Your task to perform on an android device: toggle pop-ups in chrome Image 0: 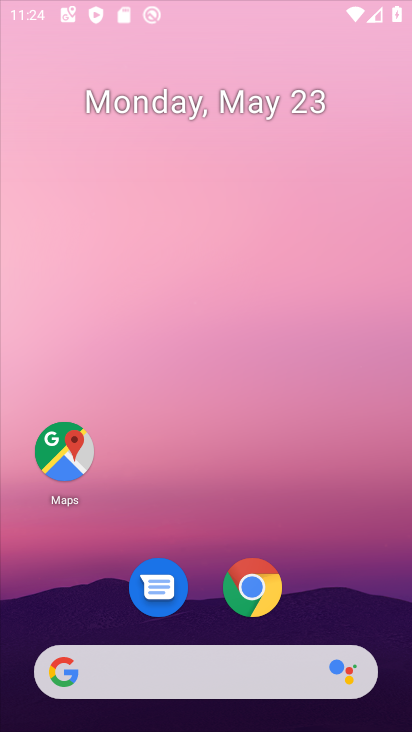
Step 0: click (263, 595)
Your task to perform on an android device: toggle pop-ups in chrome Image 1: 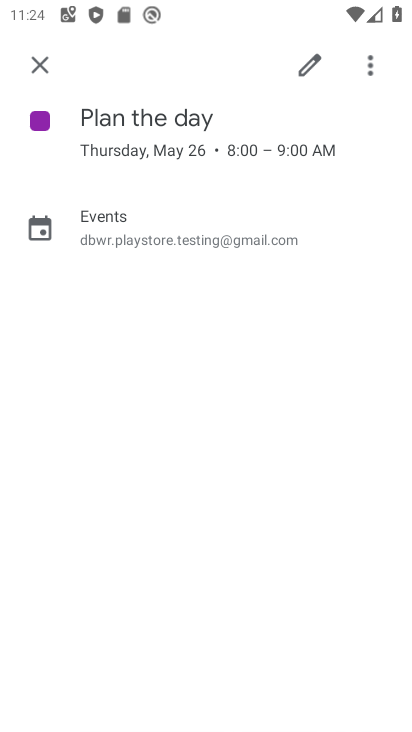
Step 1: press home button
Your task to perform on an android device: toggle pop-ups in chrome Image 2: 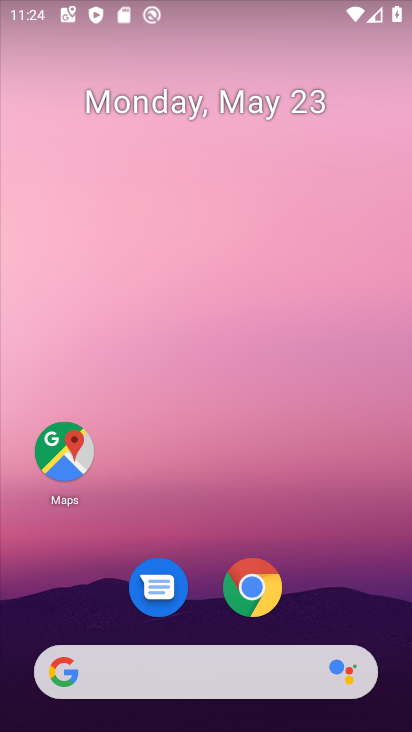
Step 2: click (267, 591)
Your task to perform on an android device: toggle pop-ups in chrome Image 3: 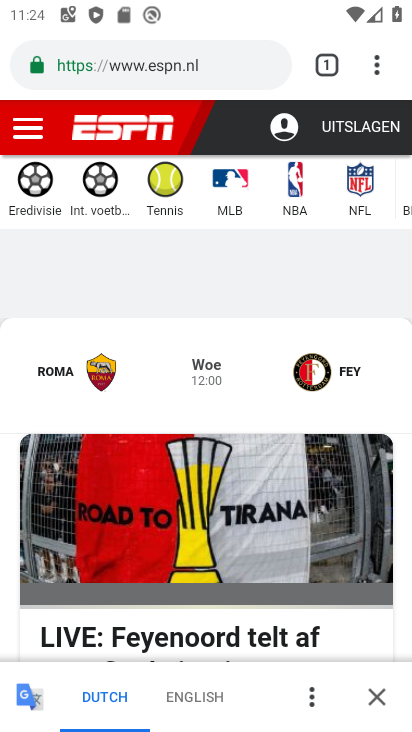
Step 3: click (377, 69)
Your task to perform on an android device: toggle pop-ups in chrome Image 4: 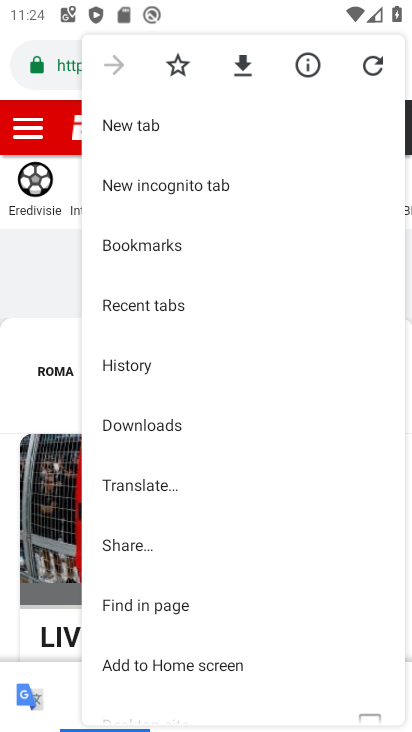
Step 4: drag from (204, 637) to (189, 244)
Your task to perform on an android device: toggle pop-ups in chrome Image 5: 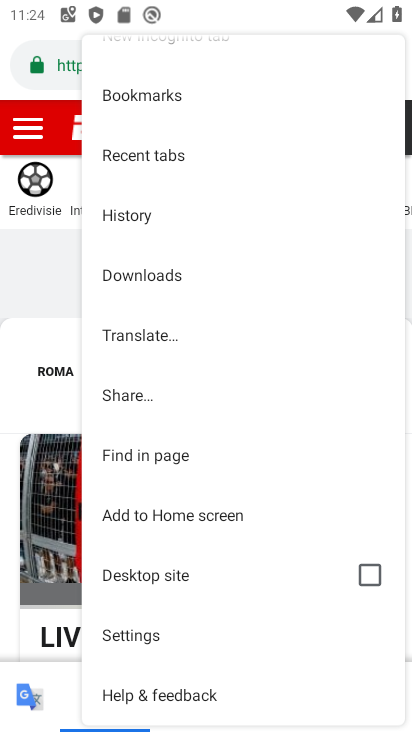
Step 5: click (176, 653)
Your task to perform on an android device: toggle pop-ups in chrome Image 6: 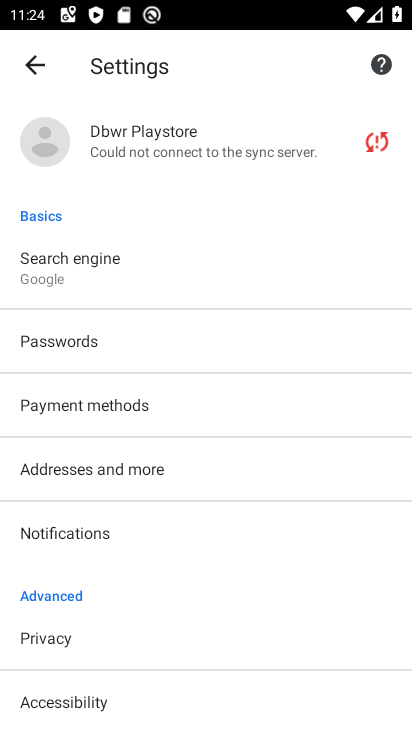
Step 6: drag from (204, 710) to (158, 261)
Your task to perform on an android device: toggle pop-ups in chrome Image 7: 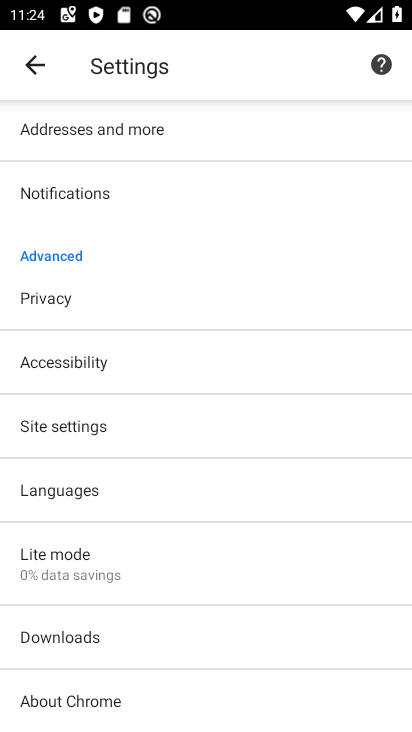
Step 7: click (175, 434)
Your task to perform on an android device: toggle pop-ups in chrome Image 8: 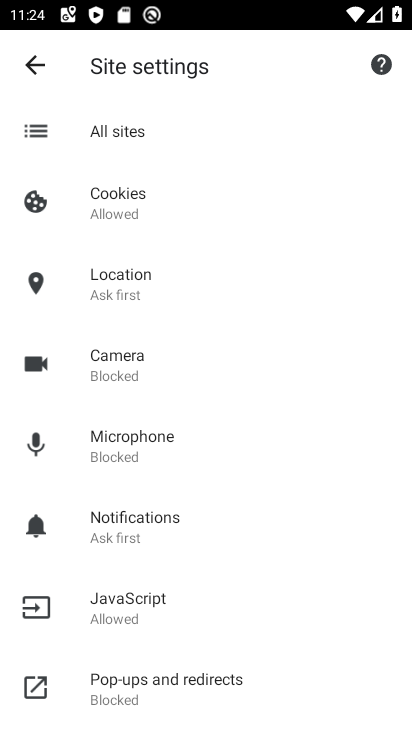
Step 8: click (221, 690)
Your task to perform on an android device: toggle pop-ups in chrome Image 9: 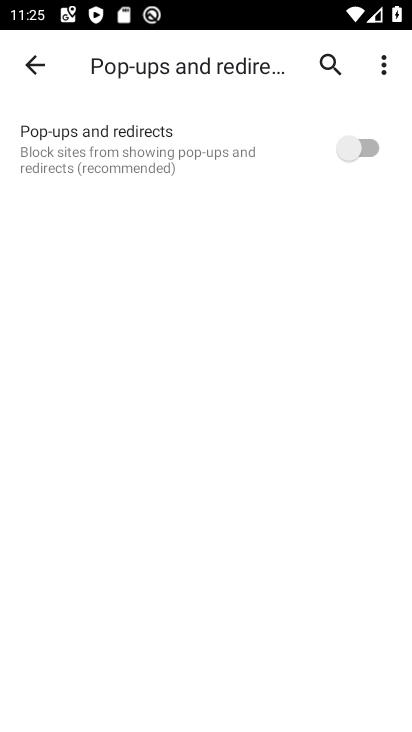
Step 9: click (360, 164)
Your task to perform on an android device: toggle pop-ups in chrome Image 10: 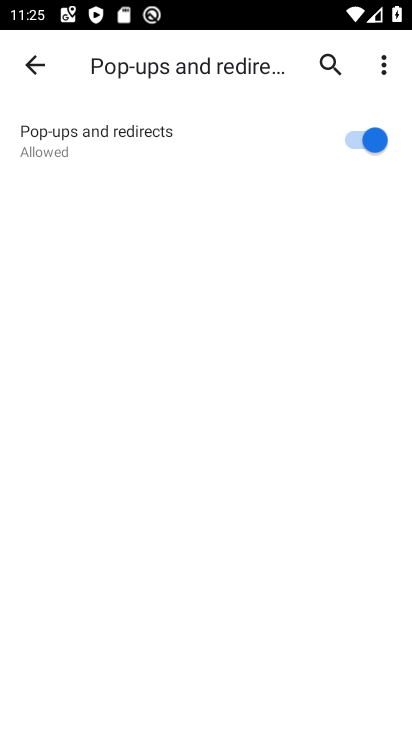
Step 10: task complete